Your task to perform on an android device: Open Reddit.com Image 0: 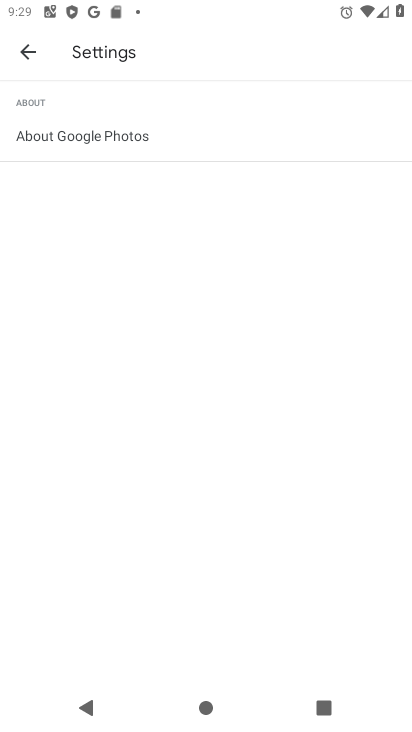
Step 0: press home button
Your task to perform on an android device: Open Reddit.com Image 1: 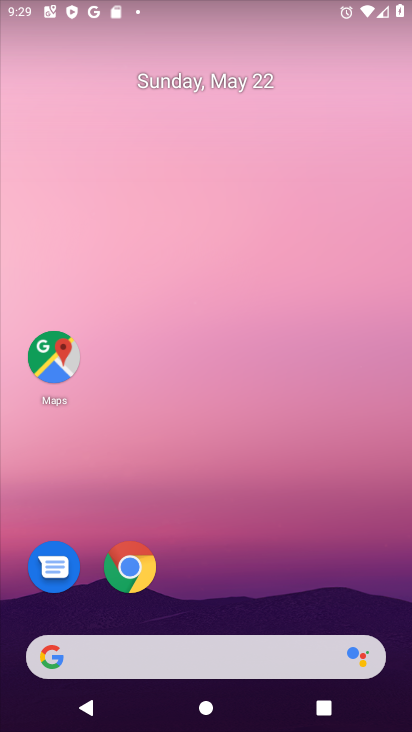
Step 1: click (148, 663)
Your task to perform on an android device: Open Reddit.com Image 2: 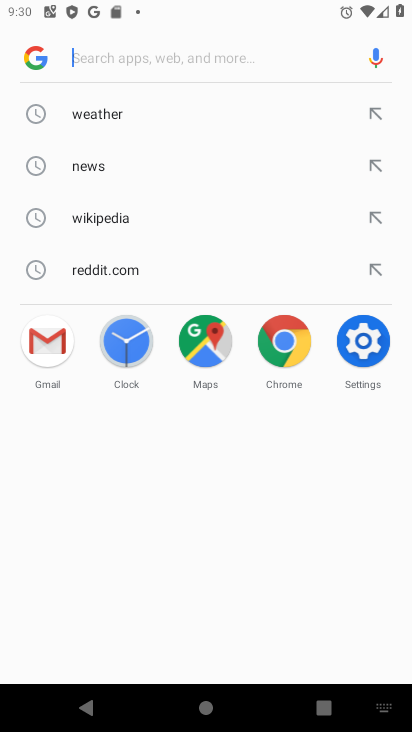
Step 2: type "Reddit.com"
Your task to perform on an android device: Open Reddit.com Image 3: 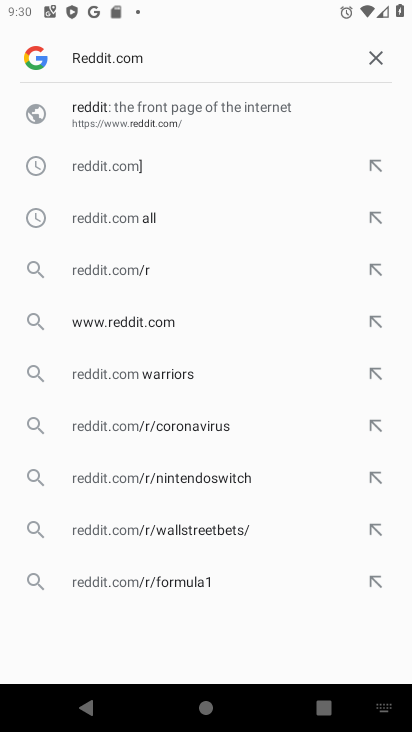
Step 3: click (129, 131)
Your task to perform on an android device: Open Reddit.com Image 4: 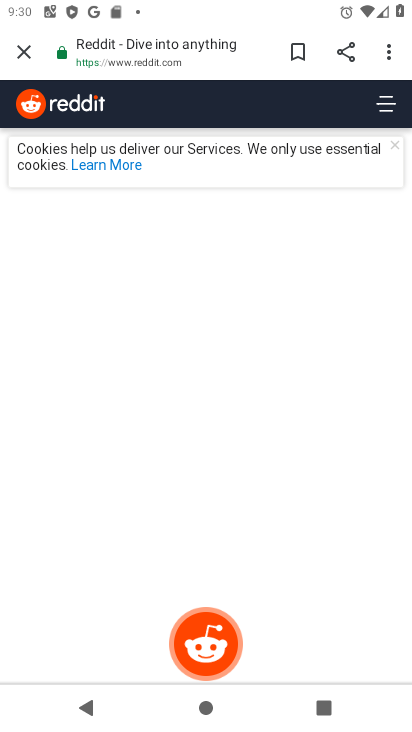
Step 4: task complete